Your task to perform on an android device: Go to sound settings Image 0: 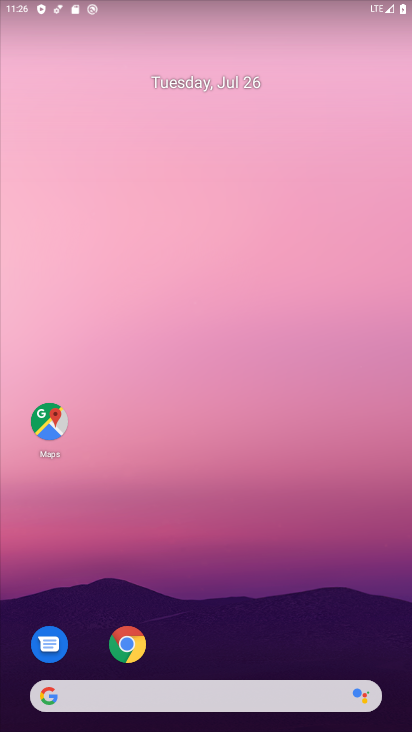
Step 0: drag from (210, 653) to (270, 243)
Your task to perform on an android device: Go to sound settings Image 1: 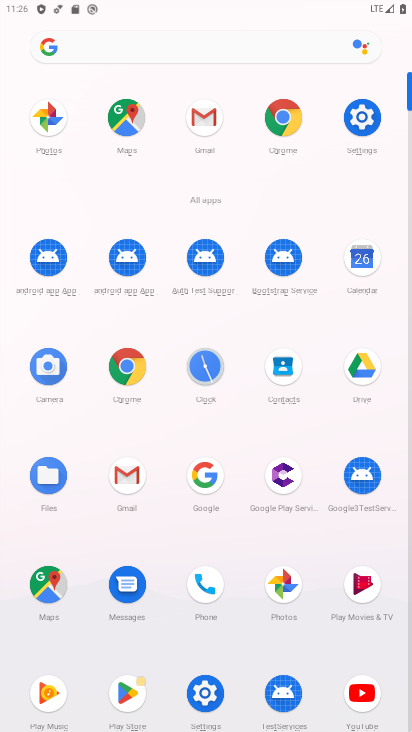
Step 1: click (365, 118)
Your task to perform on an android device: Go to sound settings Image 2: 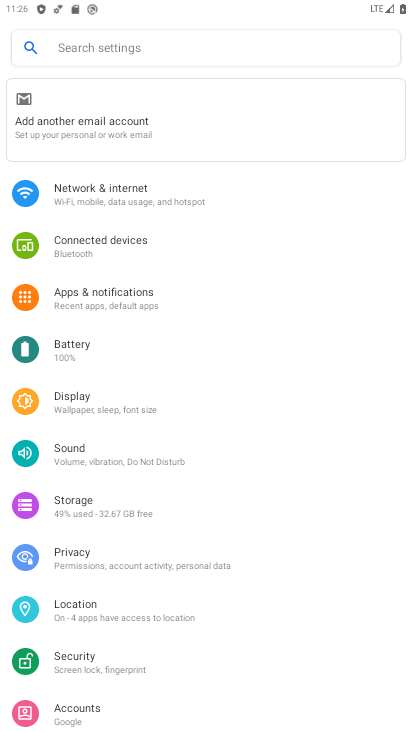
Step 2: click (124, 450)
Your task to perform on an android device: Go to sound settings Image 3: 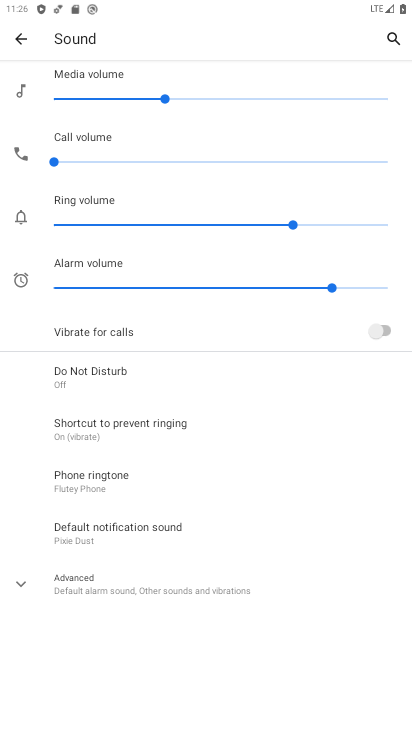
Step 3: task complete